Your task to perform on an android device: Go to battery settings Image 0: 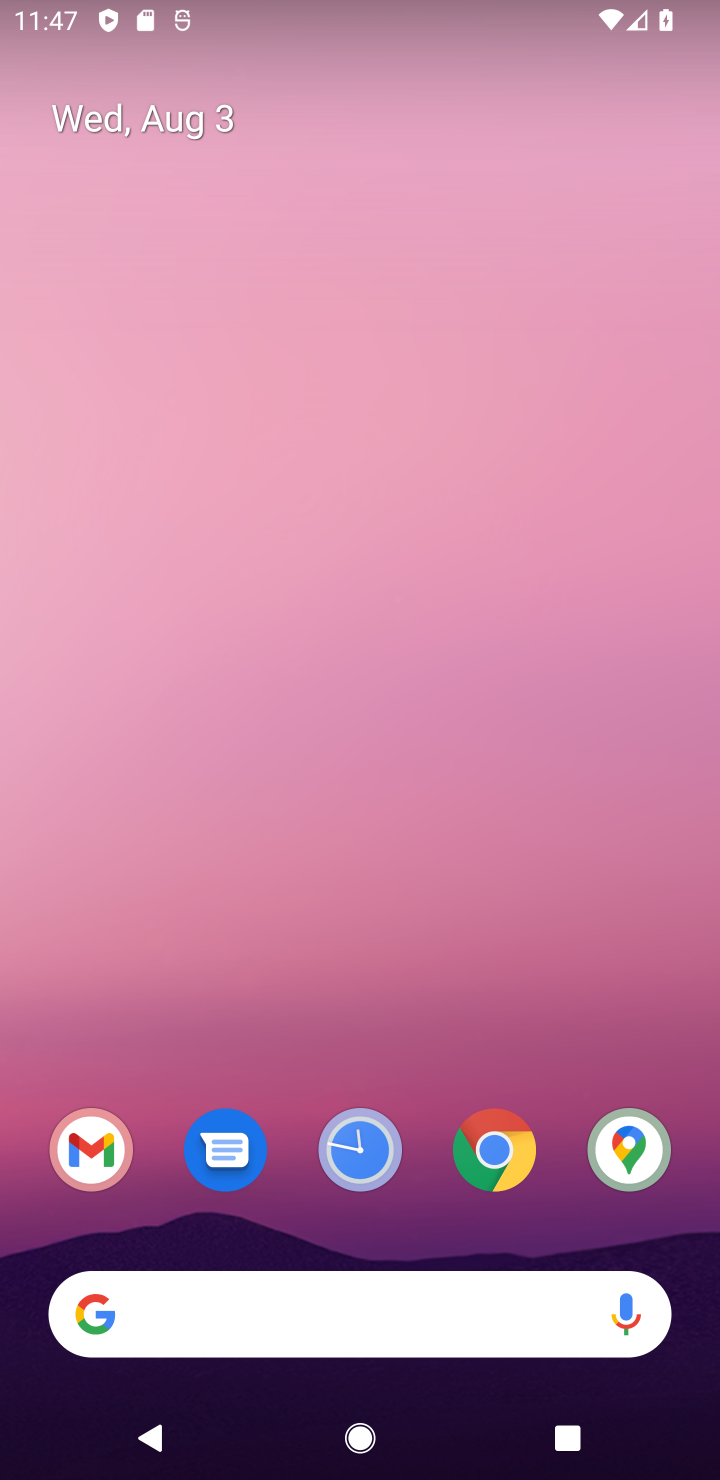
Step 0: drag from (414, 1074) to (490, 75)
Your task to perform on an android device: Go to battery settings Image 1: 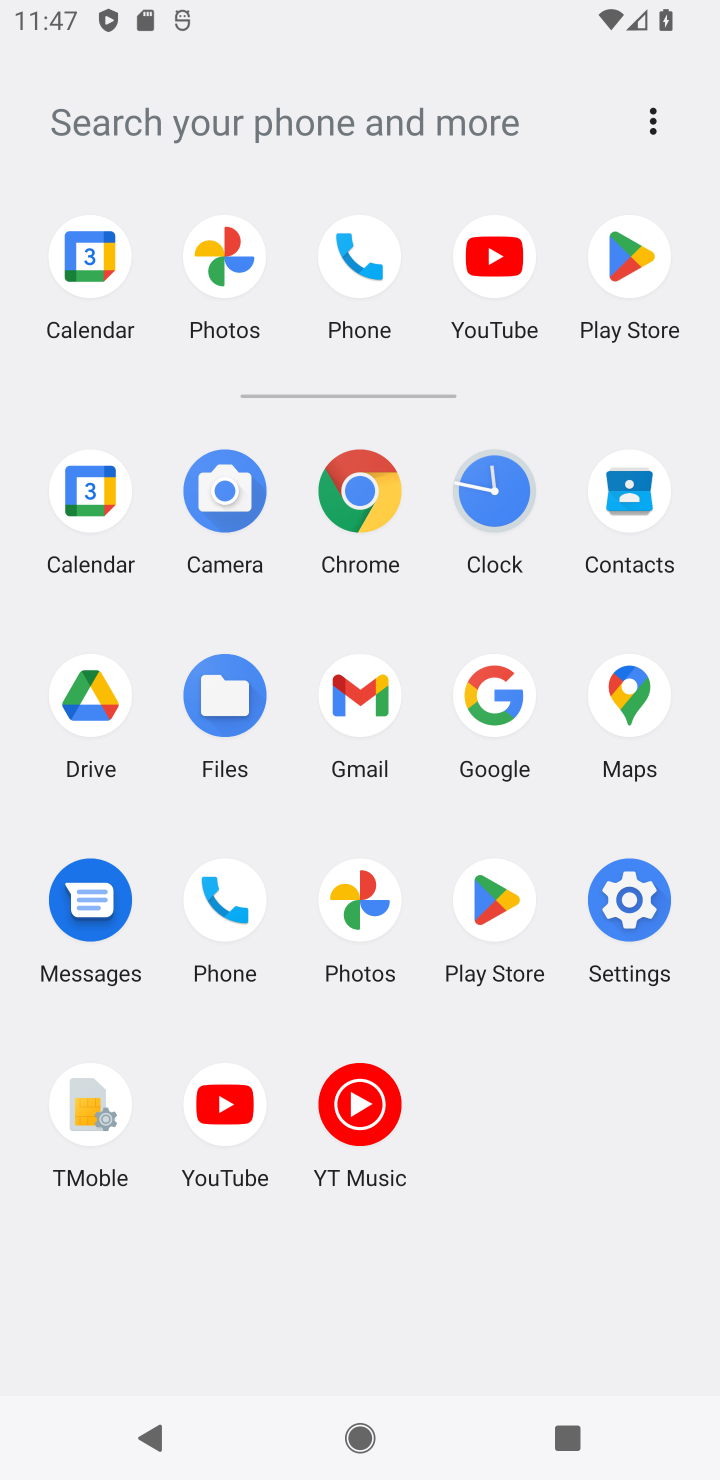
Step 1: click (620, 912)
Your task to perform on an android device: Go to battery settings Image 2: 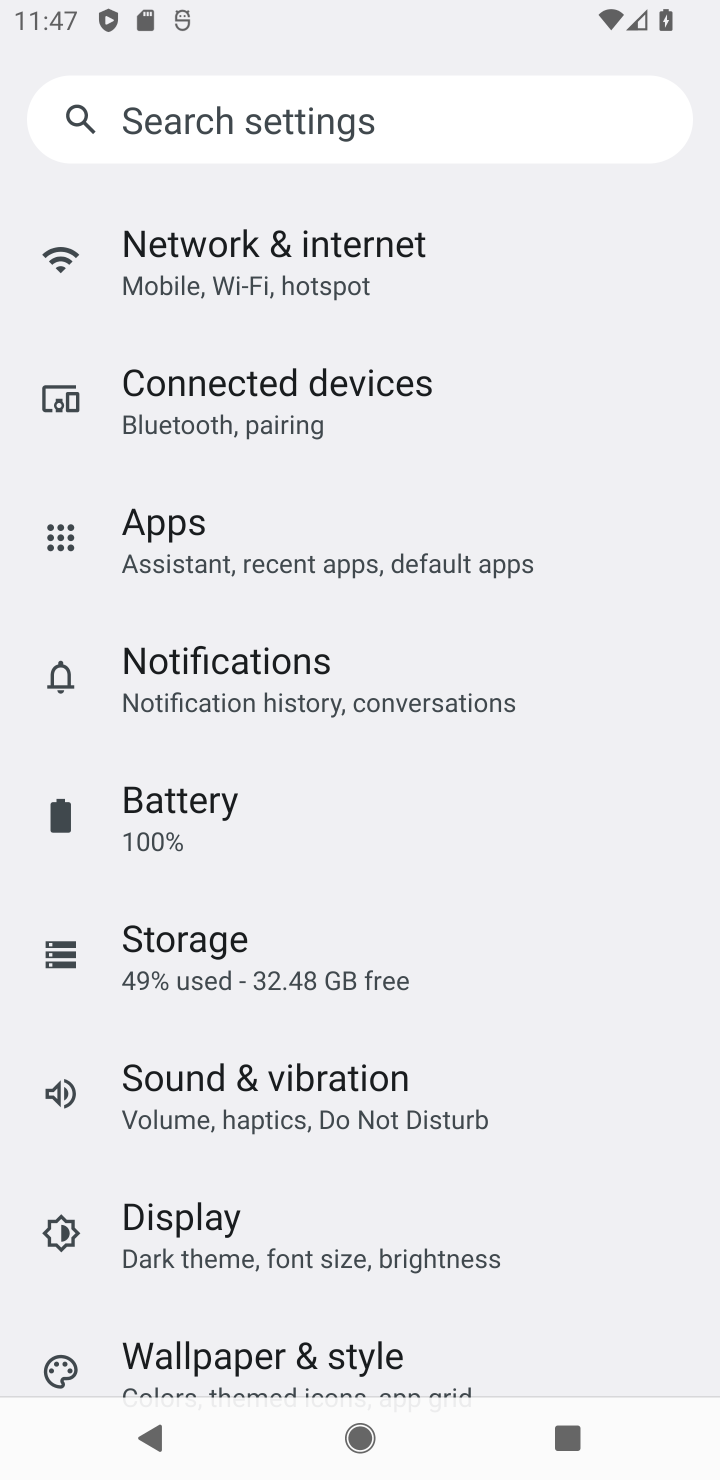
Step 2: drag from (580, 1137) to (569, 590)
Your task to perform on an android device: Go to battery settings Image 3: 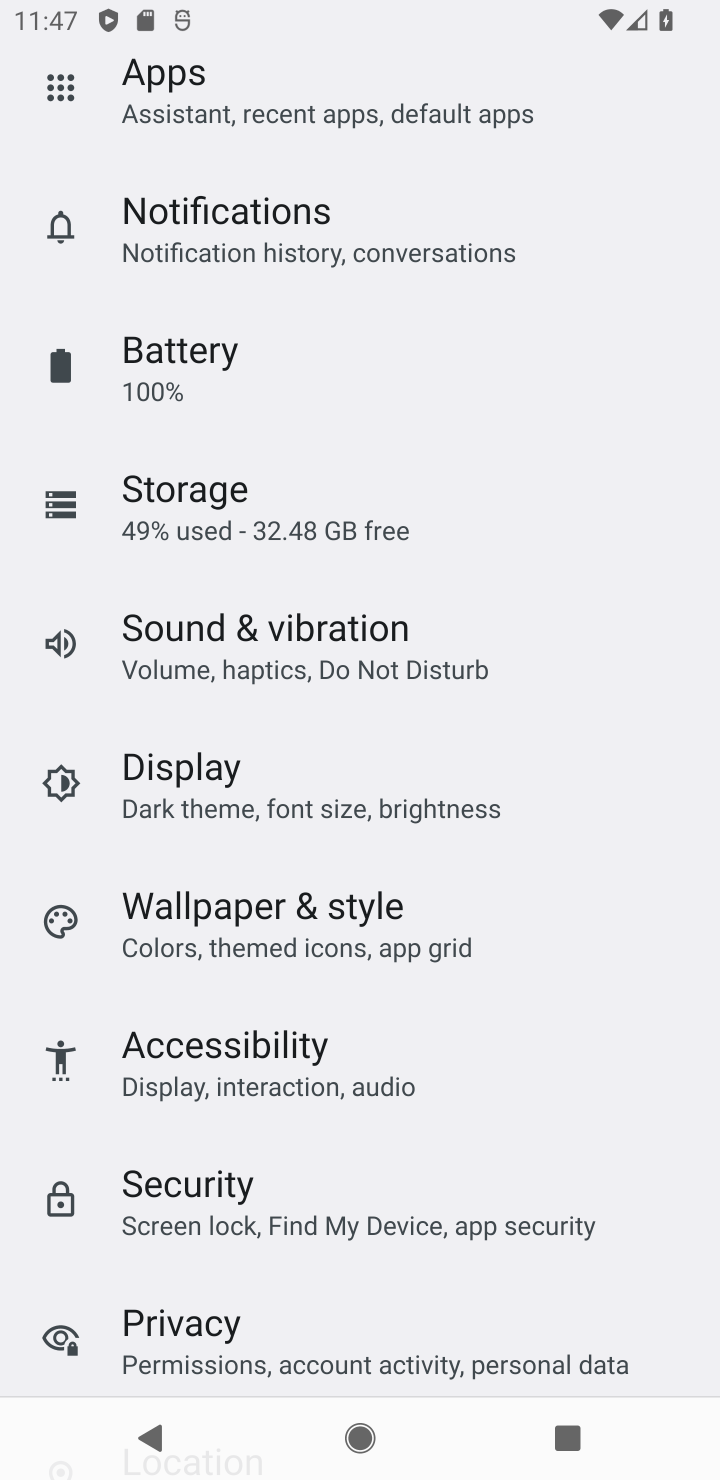
Step 3: drag from (613, 1107) to (615, 651)
Your task to perform on an android device: Go to battery settings Image 4: 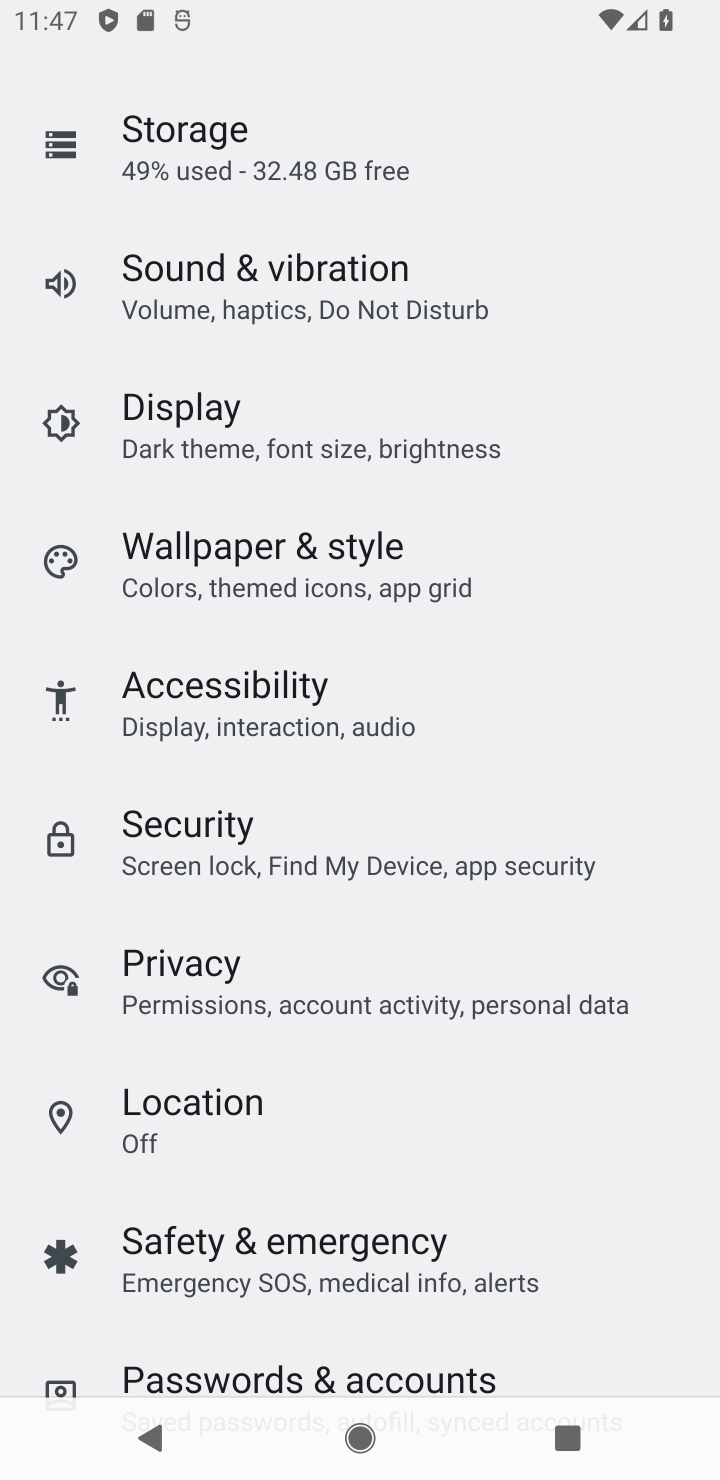
Step 4: drag from (635, 536) to (622, 927)
Your task to perform on an android device: Go to battery settings Image 5: 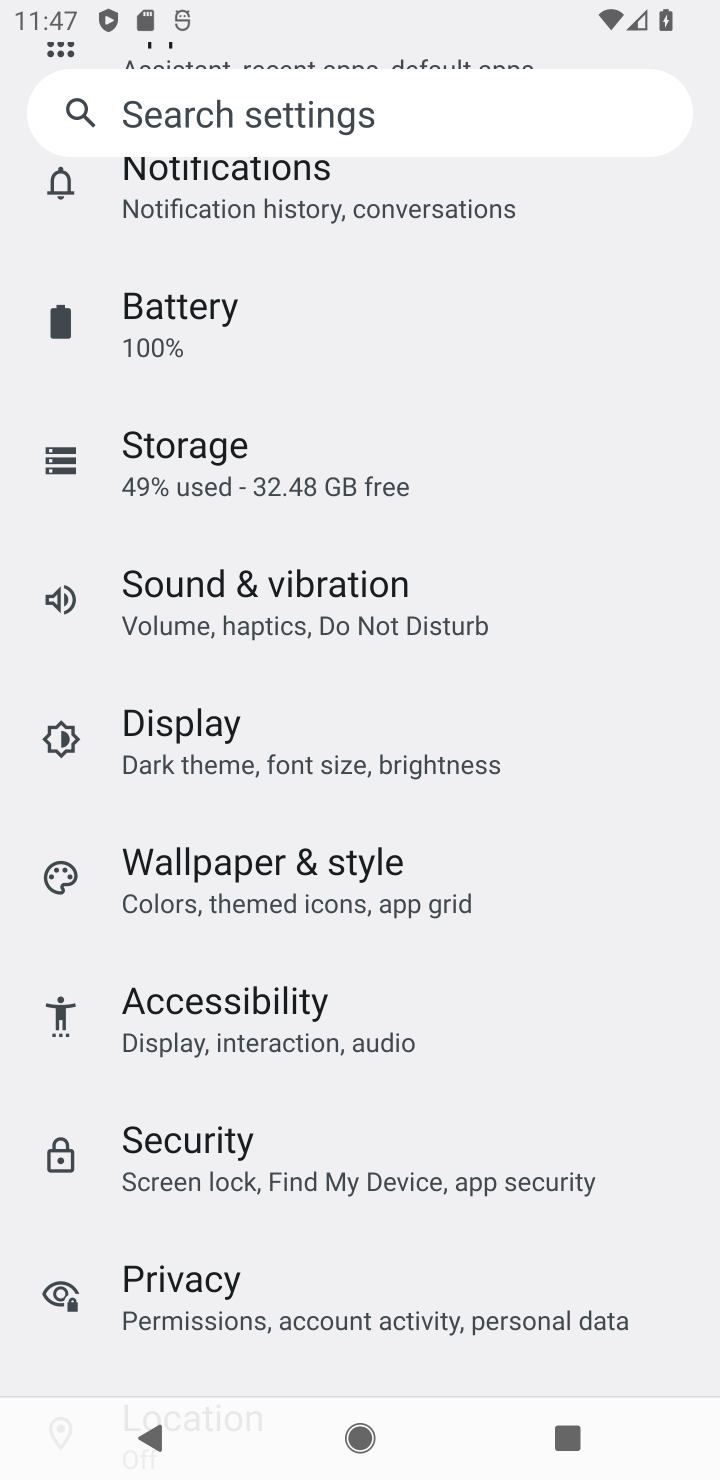
Step 5: drag from (621, 462) to (601, 934)
Your task to perform on an android device: Go to battery settings Image 6: 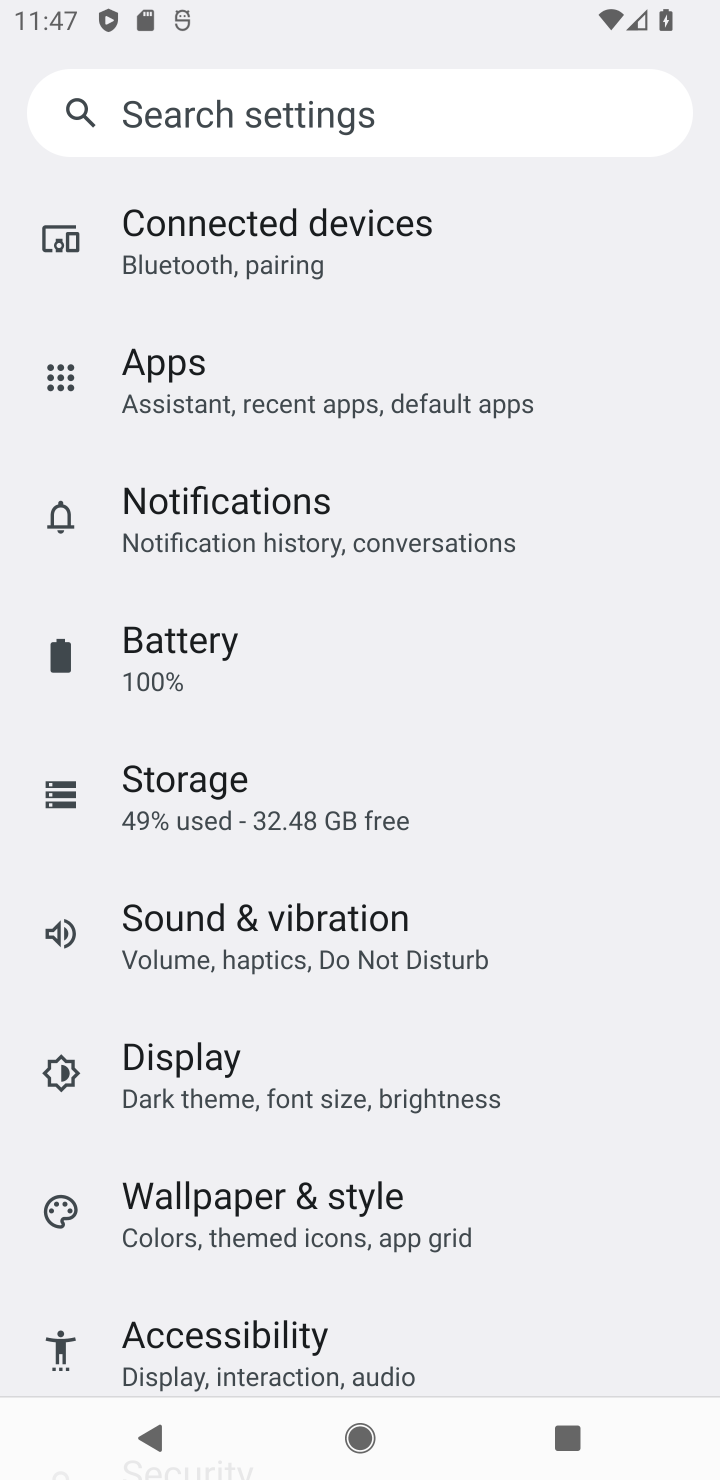
Step 6: drag from (599, 416) to (597, 838)
Your task to perform on an android device: Go to battery settings Image 7: 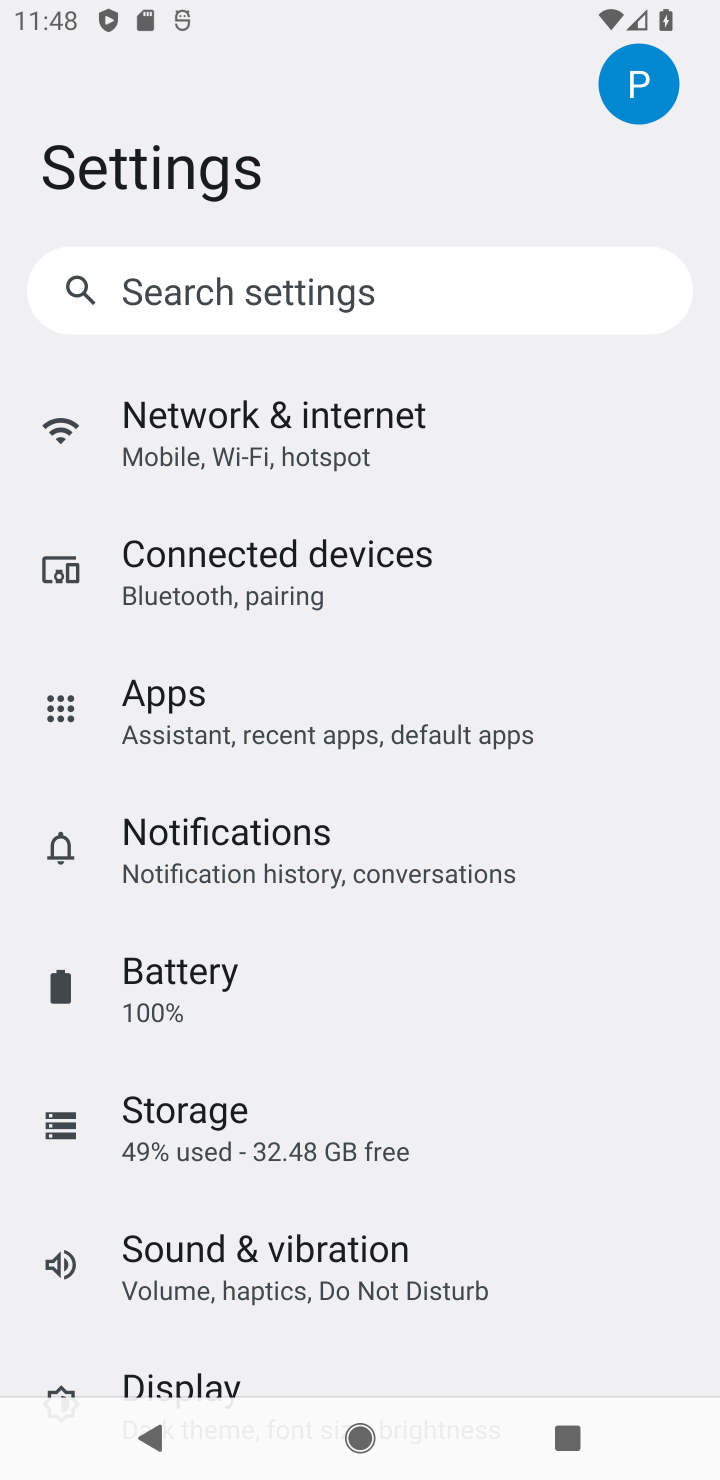
Step 7: drag from (590, 483) to (584, 936)
Your task to perform on an android device: Go to battery settings Image 8: 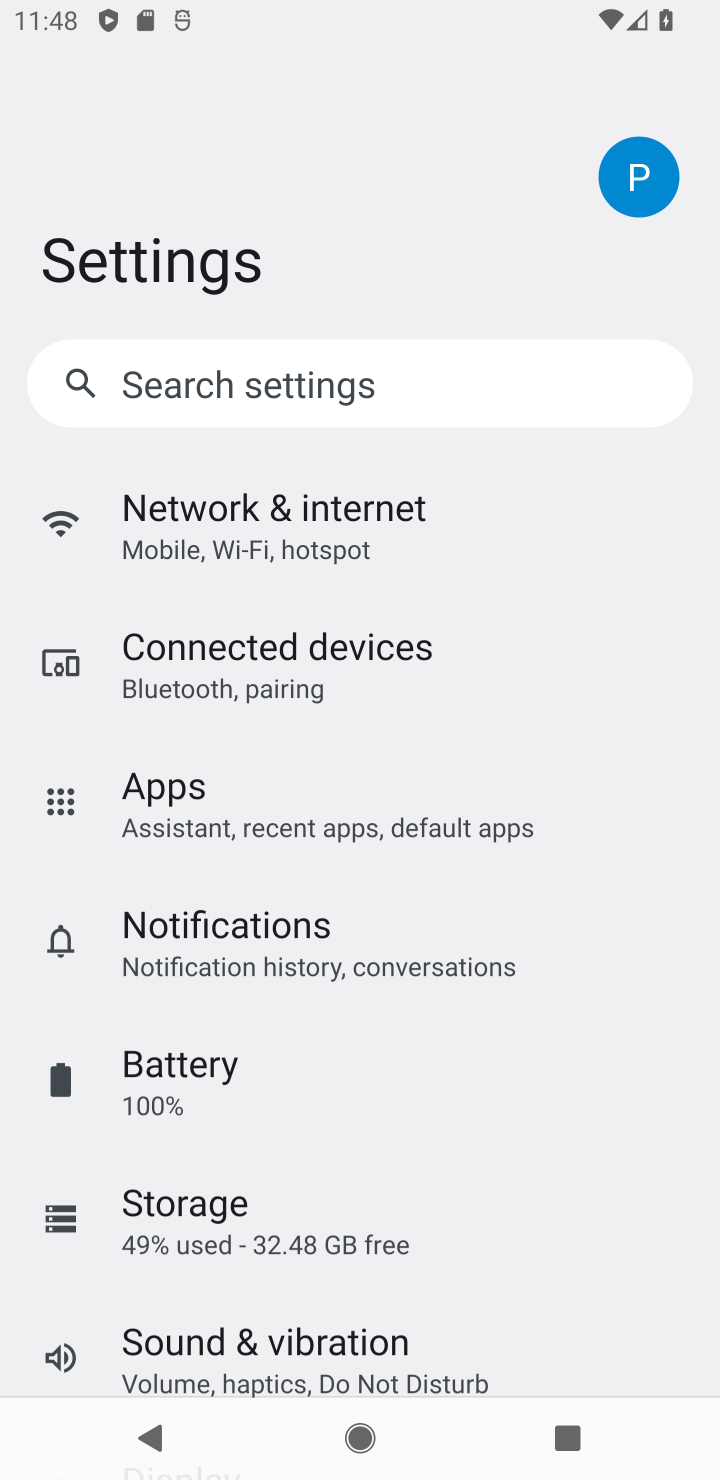
Step 8: drag from (577, 1149) to (581, 800)
Your task to perform on an android device: Go to battery settings Image 9: 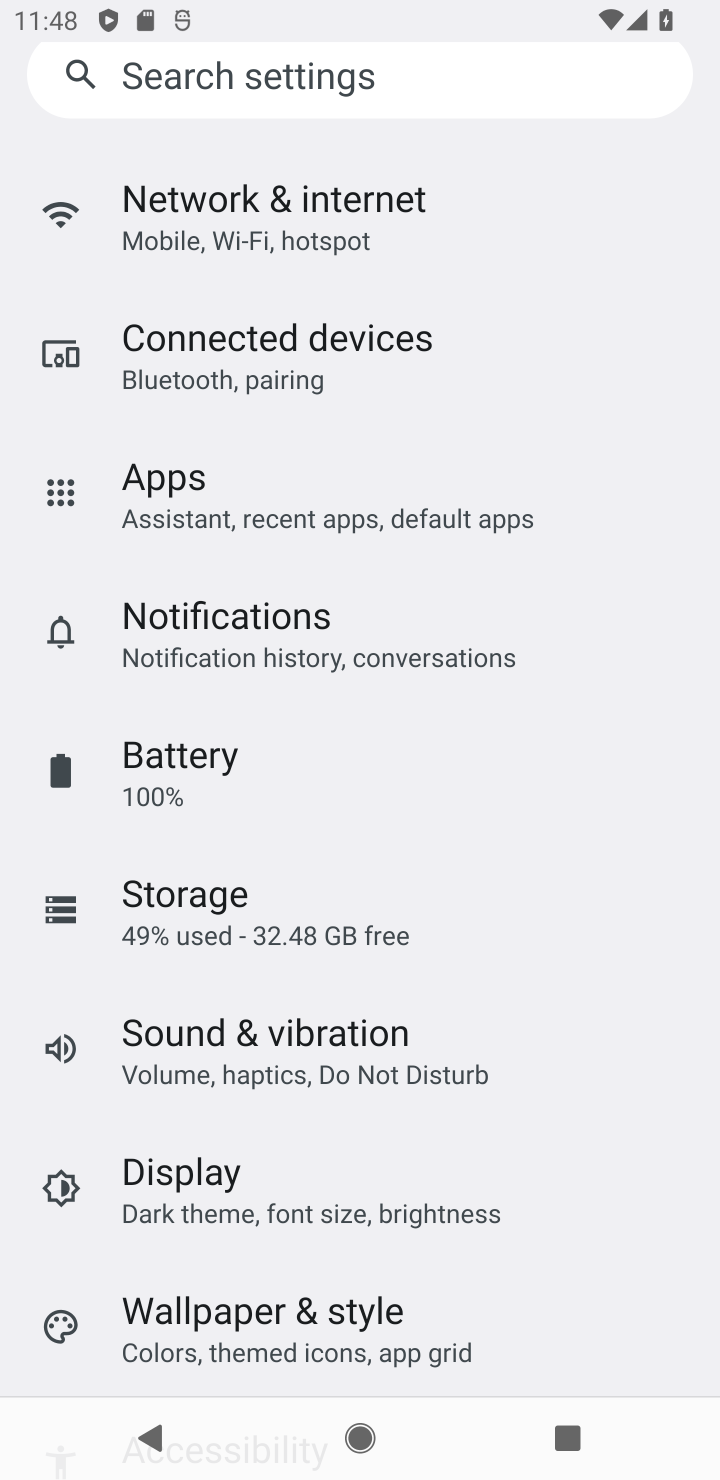
Step 9: click (229, 781)
Your task to perform on an android device: Go to battery settings Image 10: 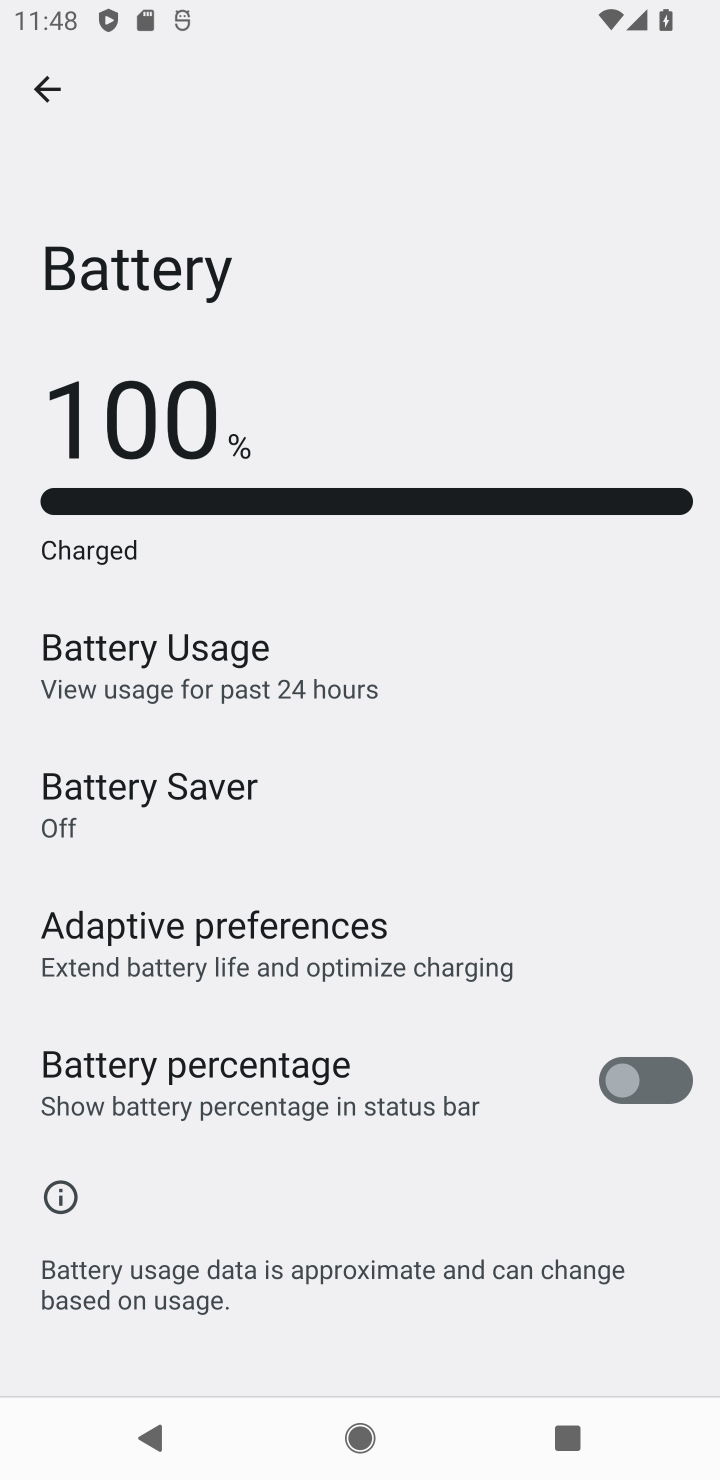
Step 10: task complete